Your task to perform on an android device: change timer sound Image 0: 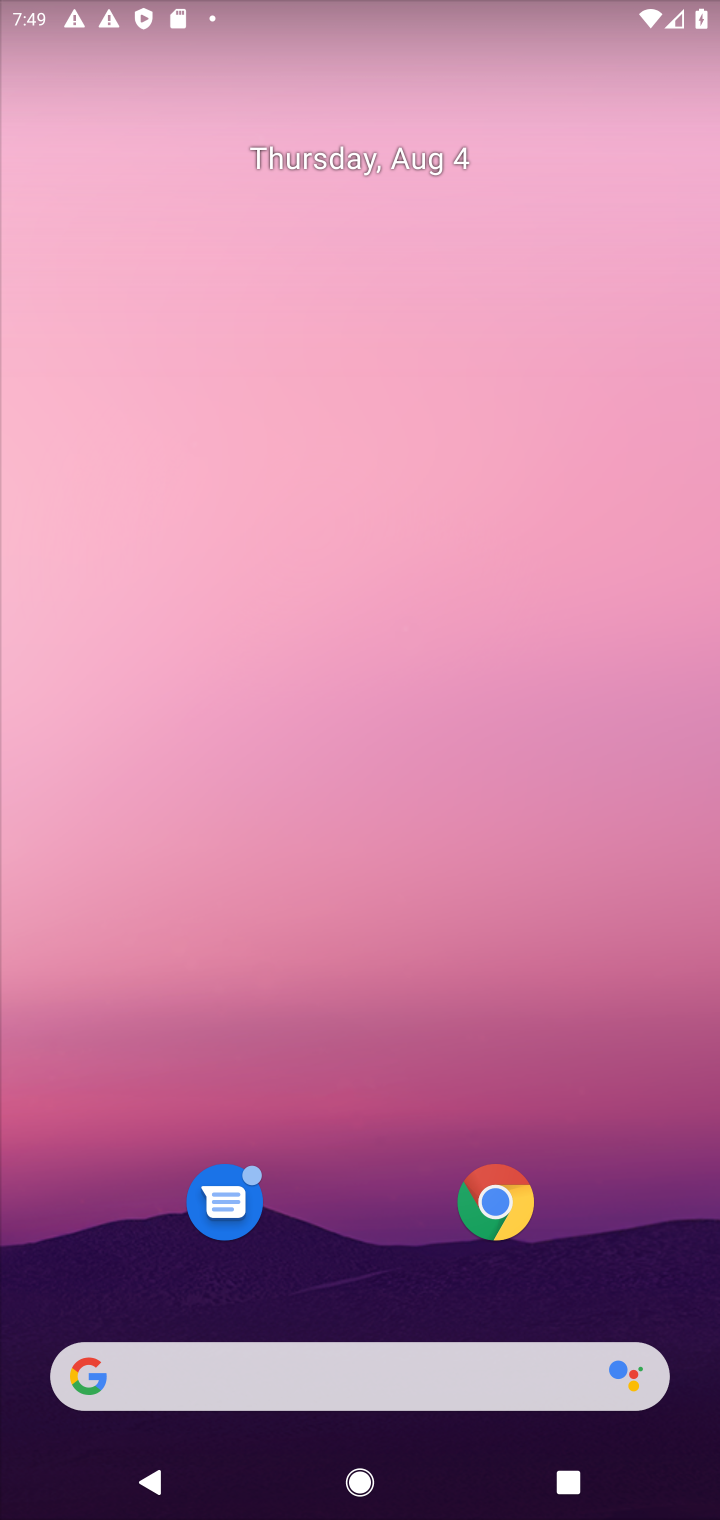
Step 0: drag from (389, 381) to (389, 302)
Your task to perform on an android device: change timer sound Image 1: 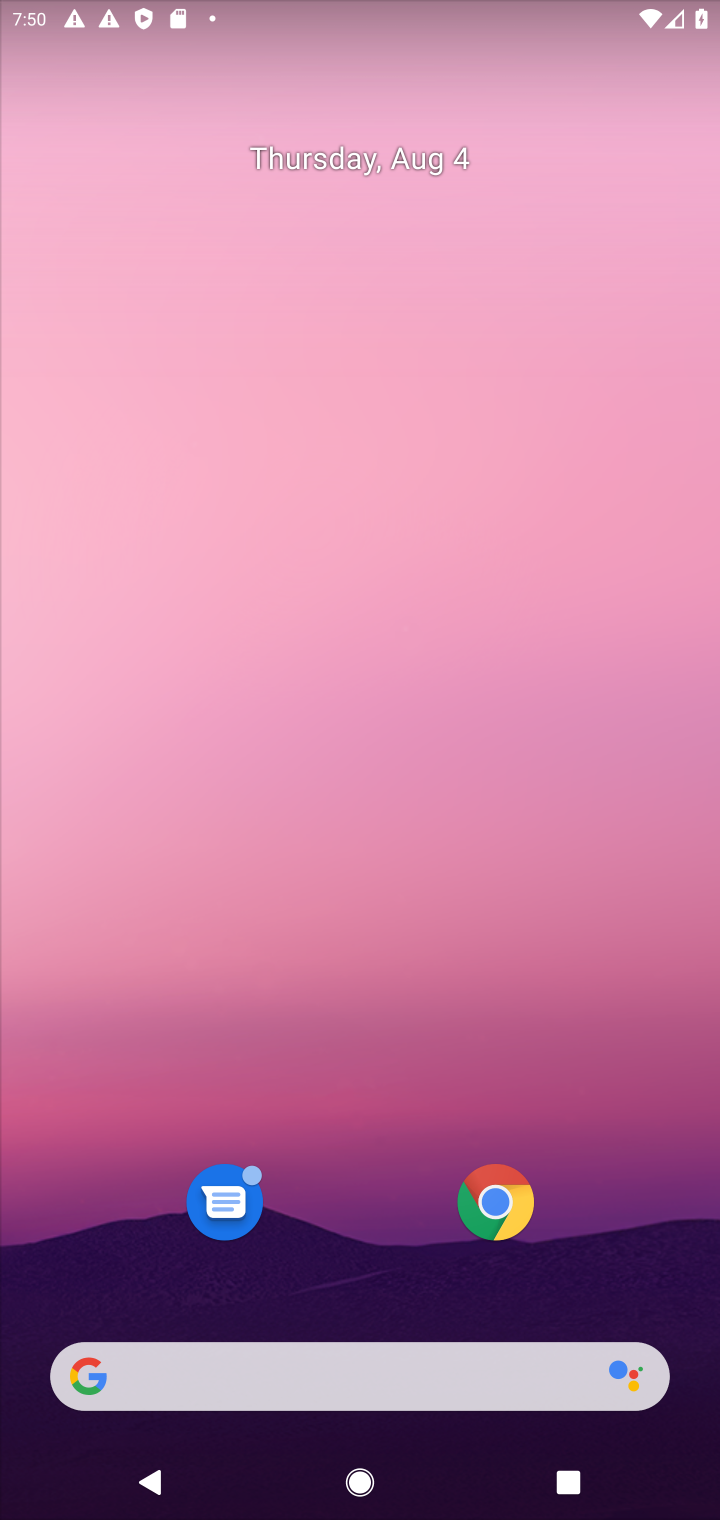
Step 1: drag from (364, 1249) to (388, 197)
Your task to perform on an android device: change timer sound Image 2: 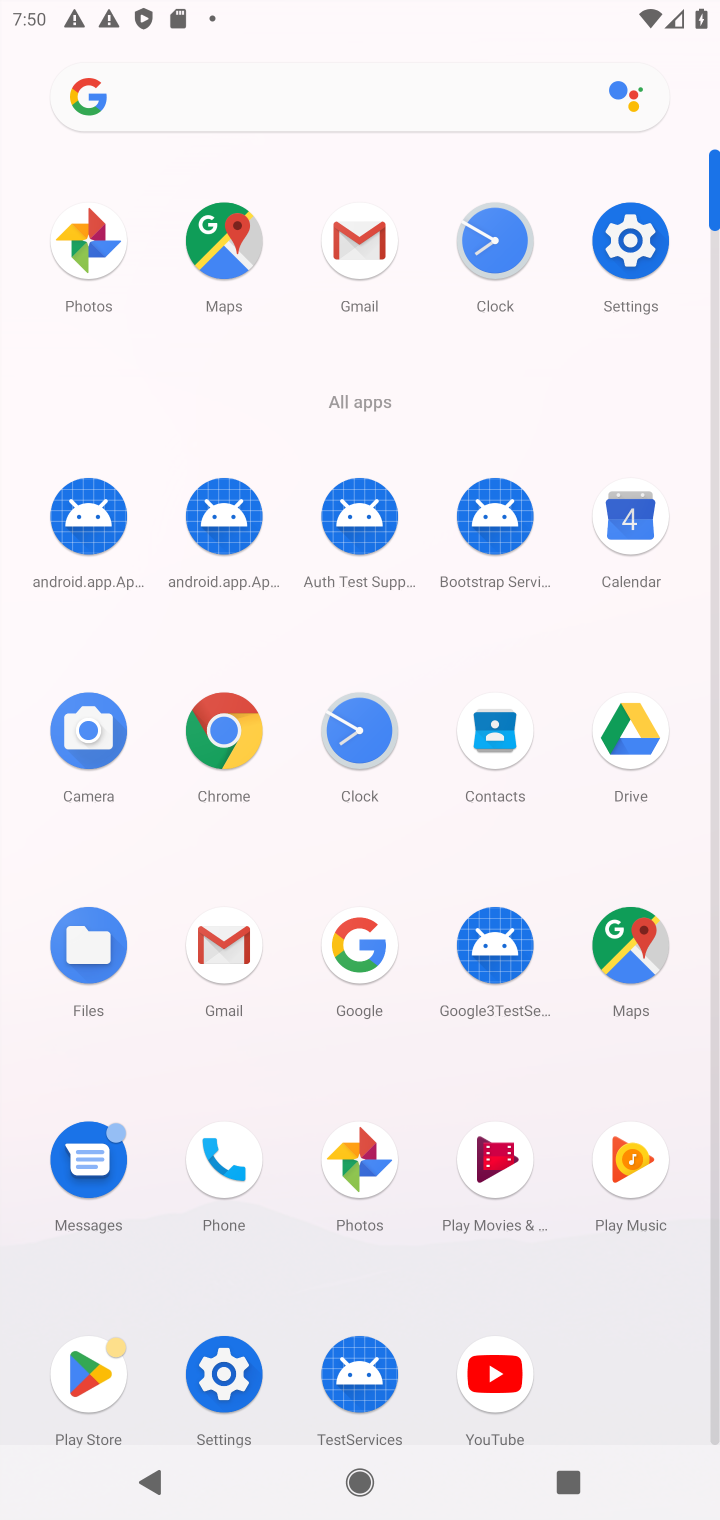
Step 2: click (493, 347)
Your task to perform on an android device: change timer sound Image 3: 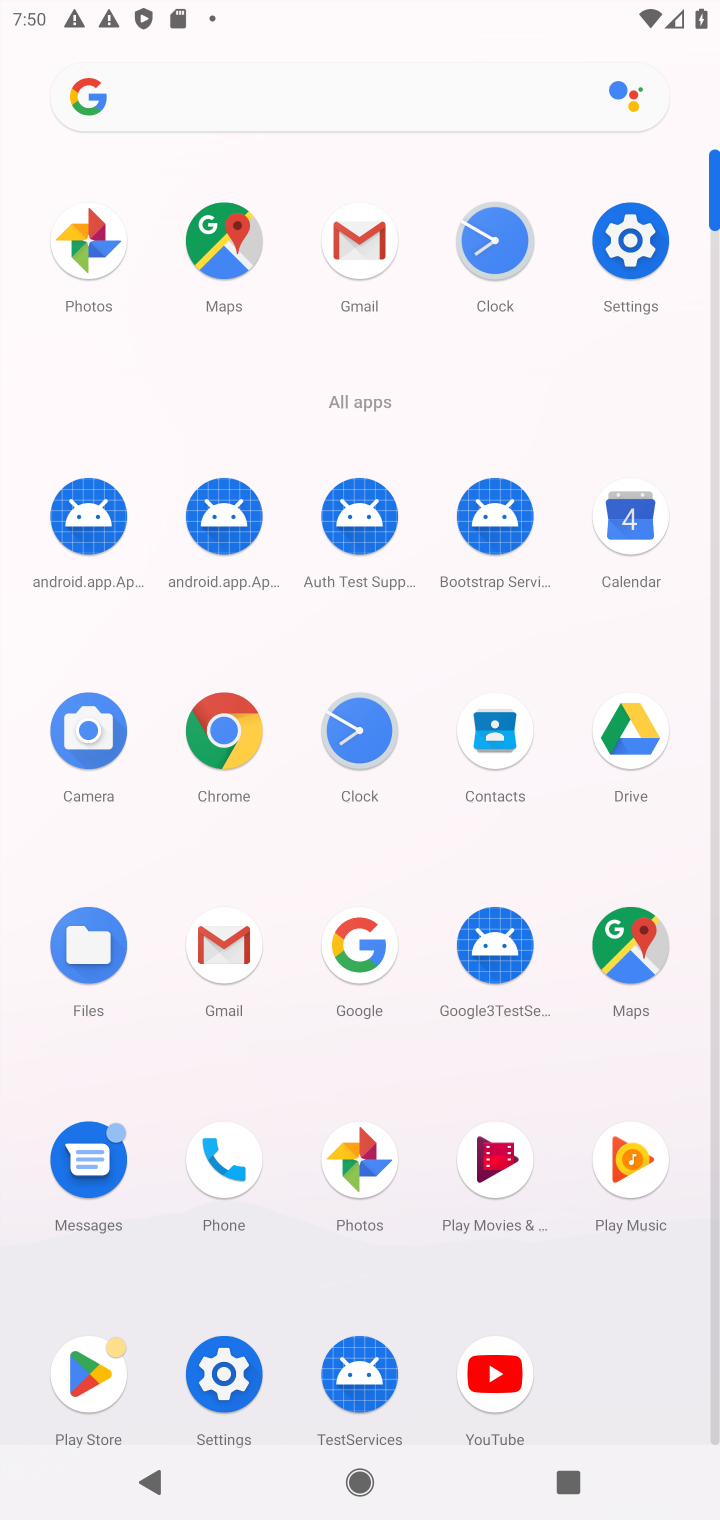
Step 3: click (496, 289)
Your task to perform on an android device: change timer sound Image 4: 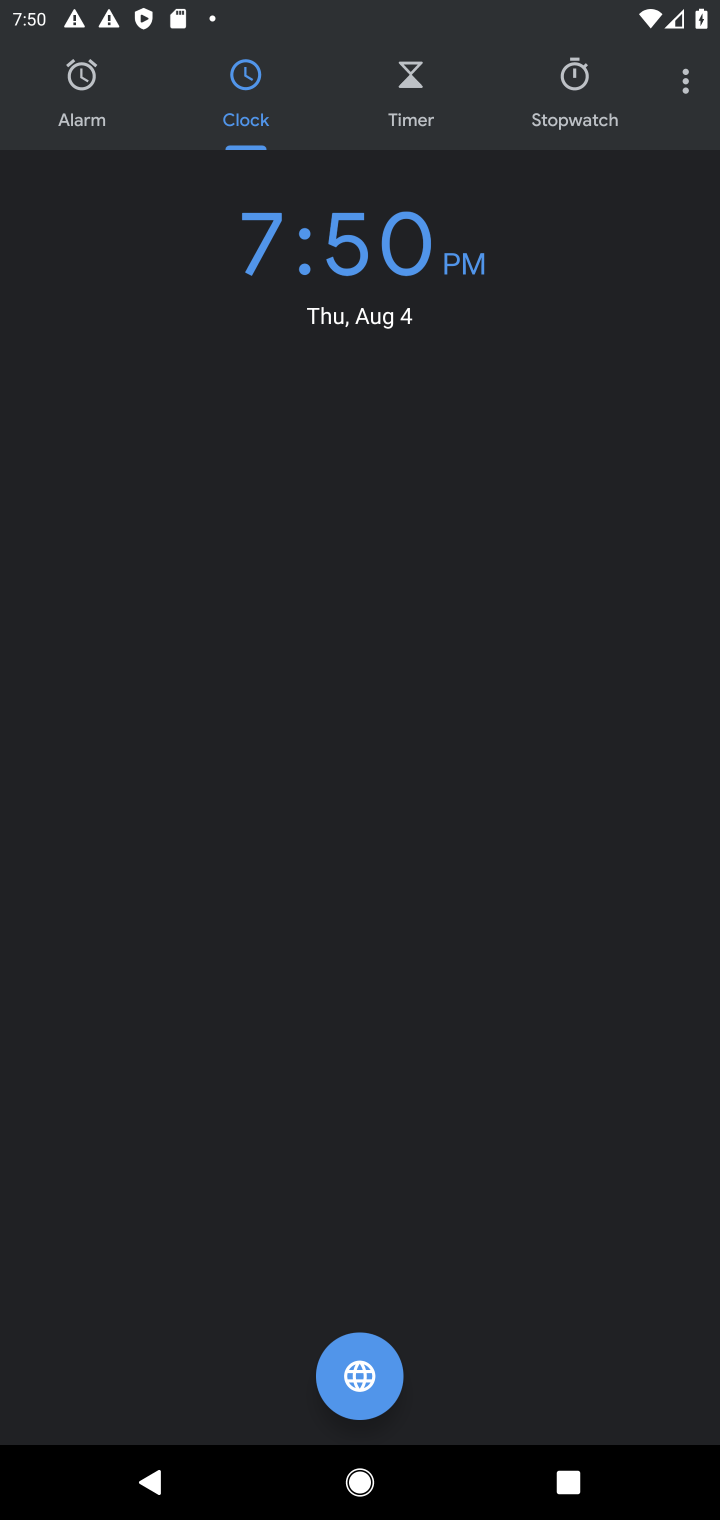
Step 4: click (682, 88)
Your task to perform on an android device: change timer sound Image 5: 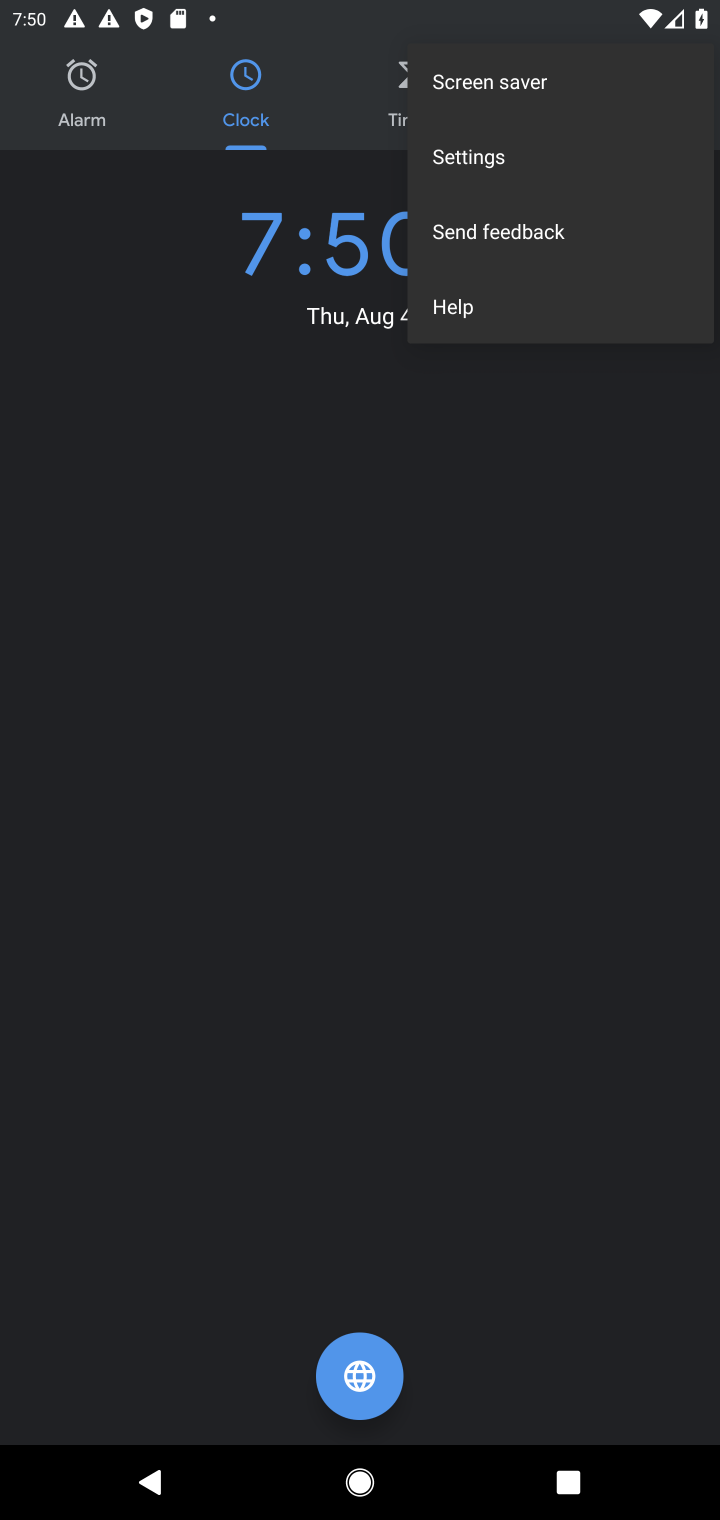
Step 5: click (486, 181)
Your task to perform on an android device: change timer sound Image 6: 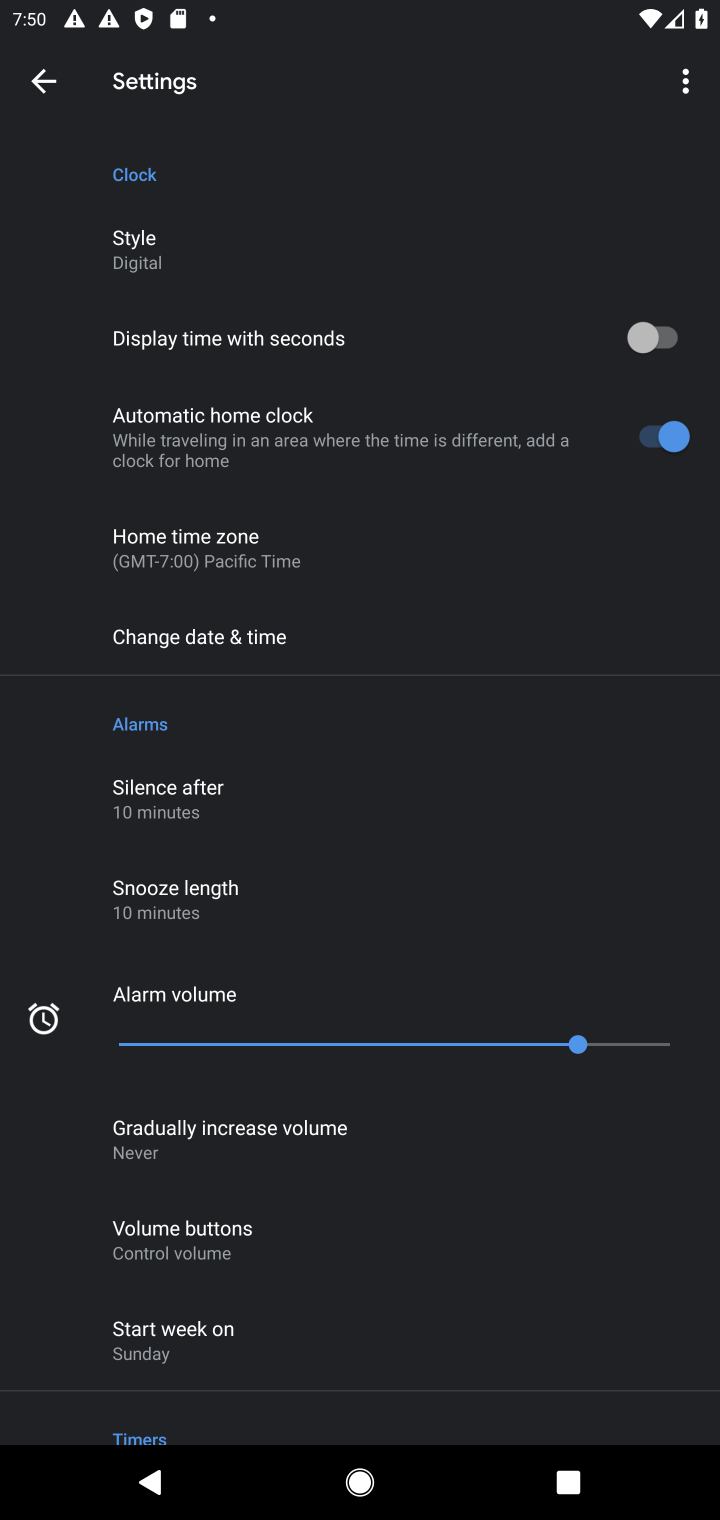
Step 6: drag from (361, 1211) to (435, 749)
Your task to perform on an android device: change timer sound Image 7: 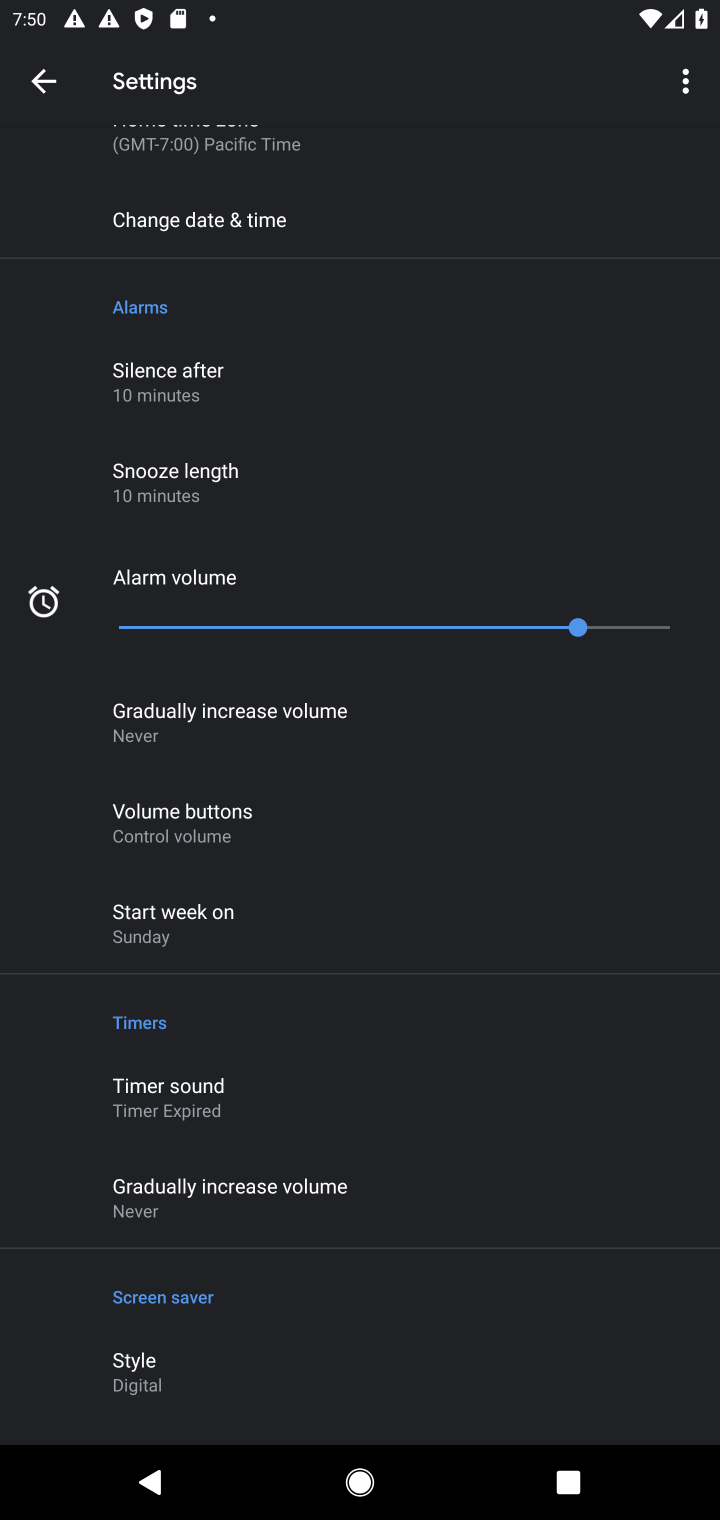
Step 7: click (297, 1107)
Your task to perform on an android device: change timer sound Image 8: 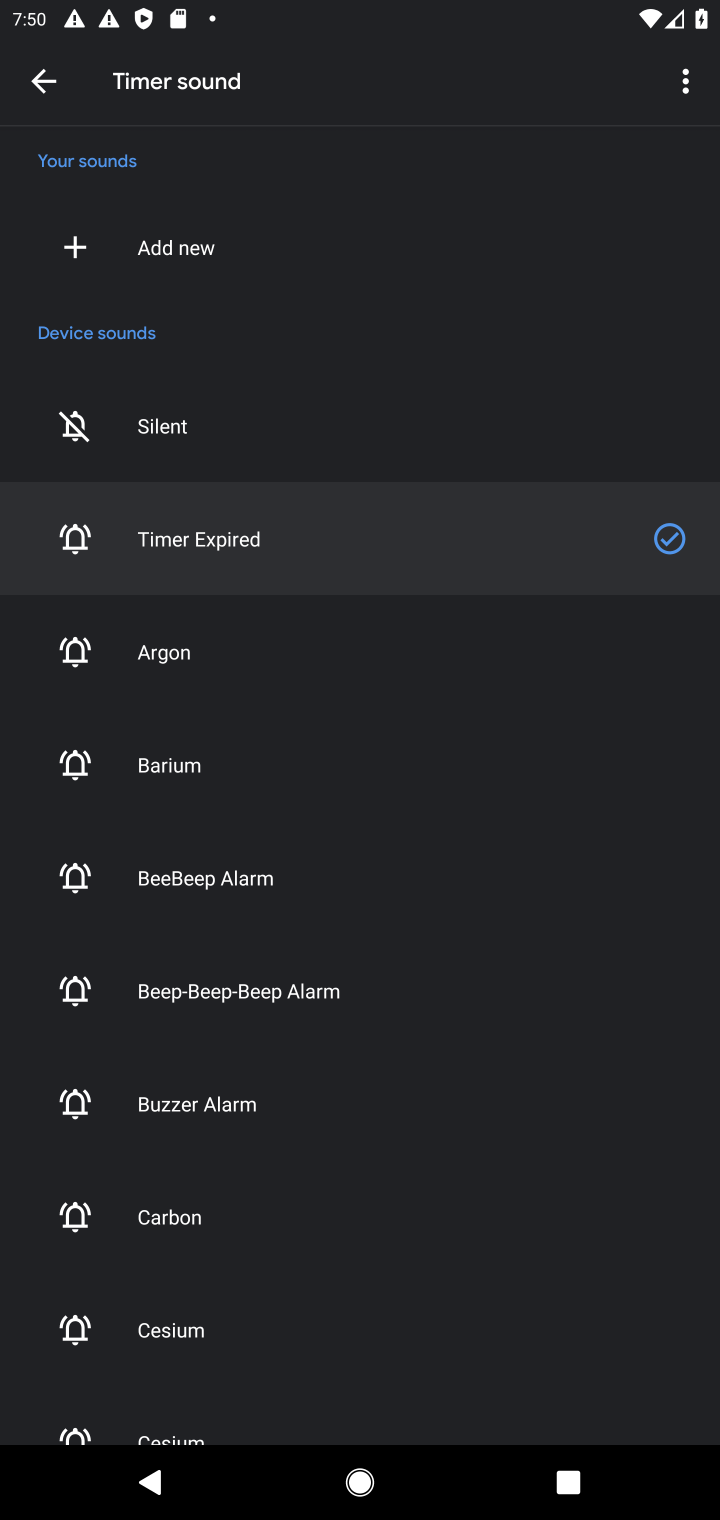
Step 8: click (276, 918)
Your task to perform on an android device: change timer sound Image 9: 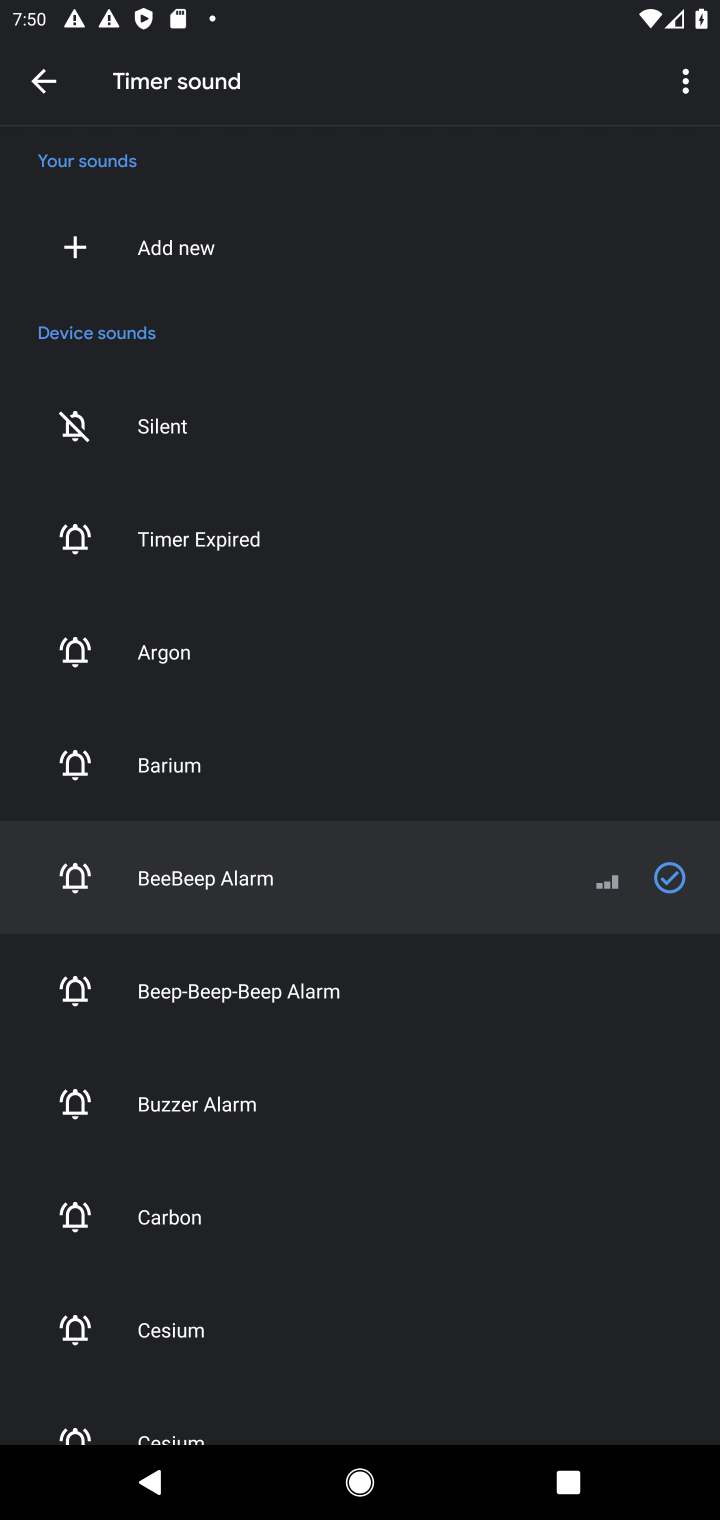
Step 9: task complete